Your task to perform on an android device: change your default location settings in chrome Image 0: 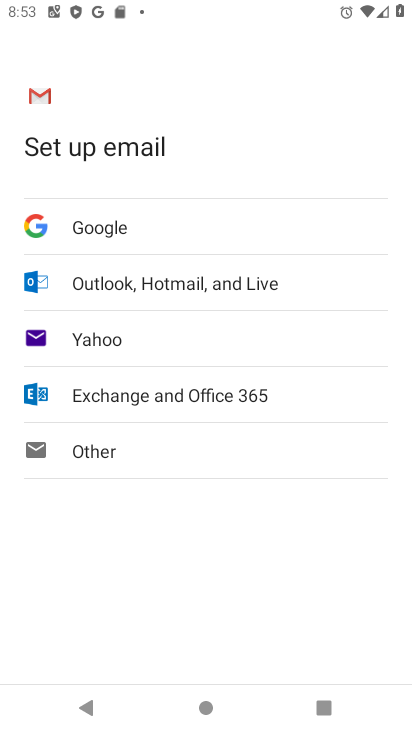
Step 0: press back button
Your task to perform on an android device: change your default location settings in chrome Image 1: 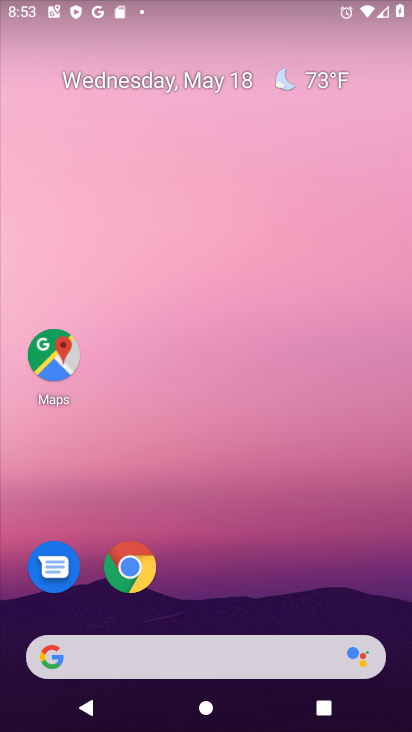
Step 1: drag from (252, 565) to (199, 6)
Your task to perform on an android device: change your default location settings in chrome Image 2: 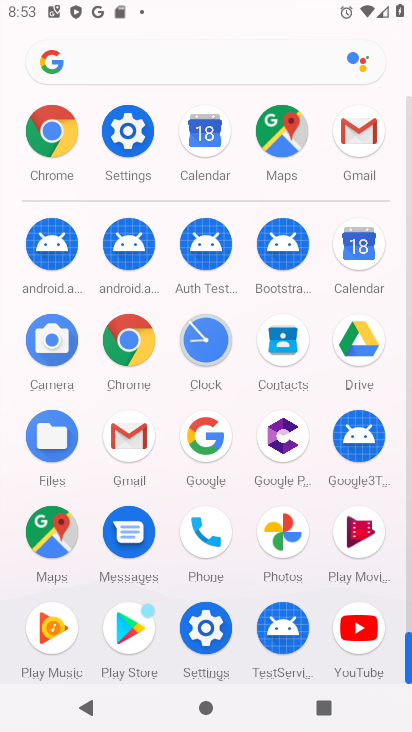
Step 2: click (122, 338)
Your task to perform on an android device: change your default location settings in chrome Image 3: 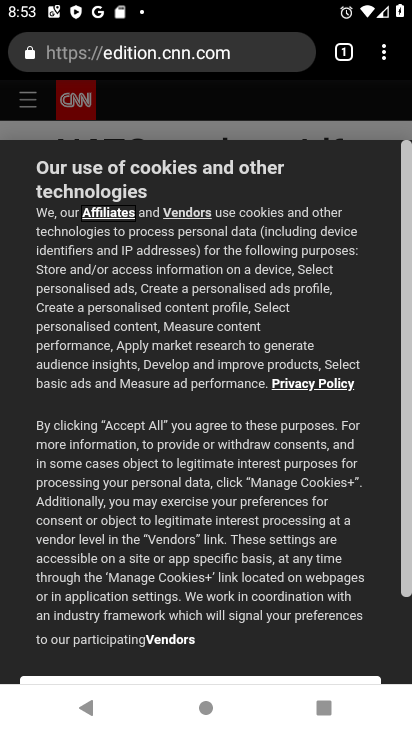
Step 3: drag from (387, 50) to (200, 575)
Your task to perform on an android device: change your default location settings in chrome Image 4: 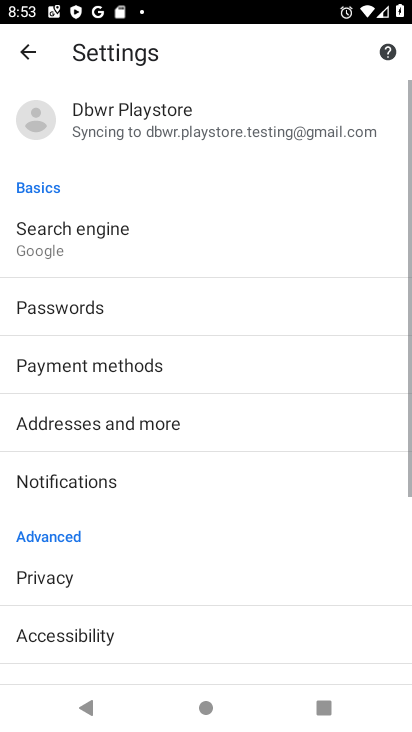
Step 4: drag from (191, 569) to (236, 141)
Your task to perform on an android device: change your default location settings in chrome Image 5: 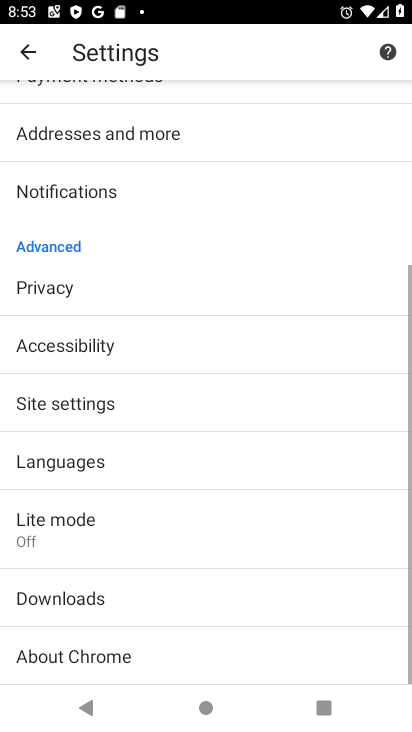
Step 5: click (86, 399)
Your task to perform on an android device: change your default location settings in chrome Image 6: 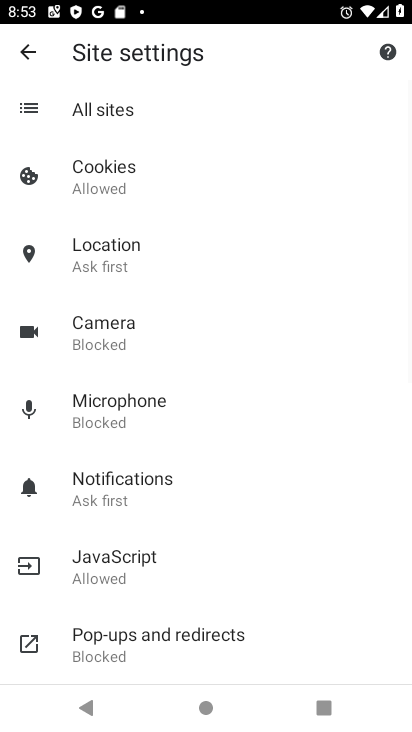
Step 6: click (155, 240)
Your task to perform on an android device: change your default location settings in chrome Image 7: 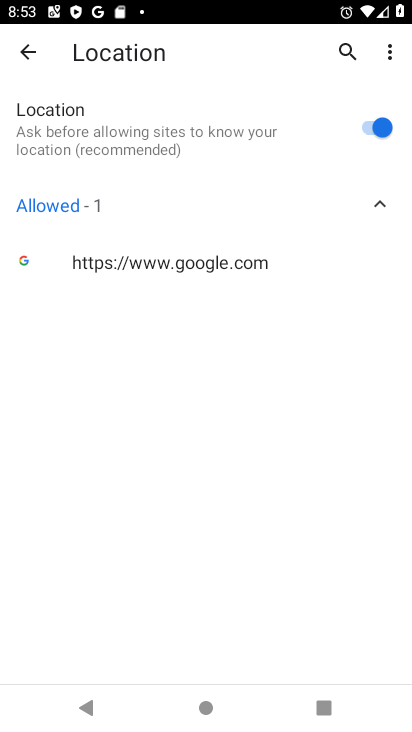
Step 7: click (369, 123)
Your task to perform on an android device: change your default location settings in chrome Image 8: 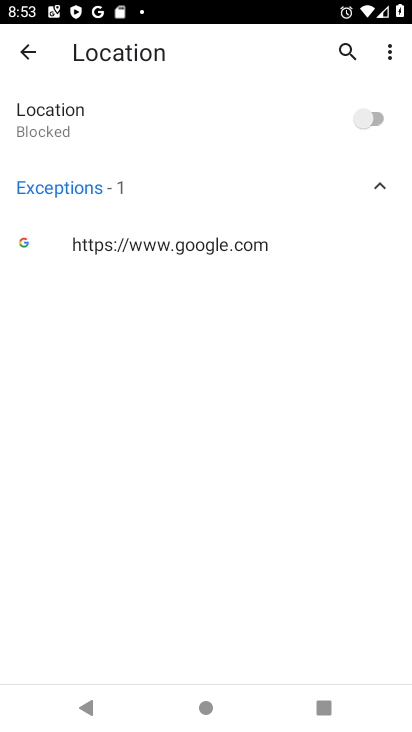
Step 8: task complete